Your task to perform on an android device: turn on sleep mode Image 0: 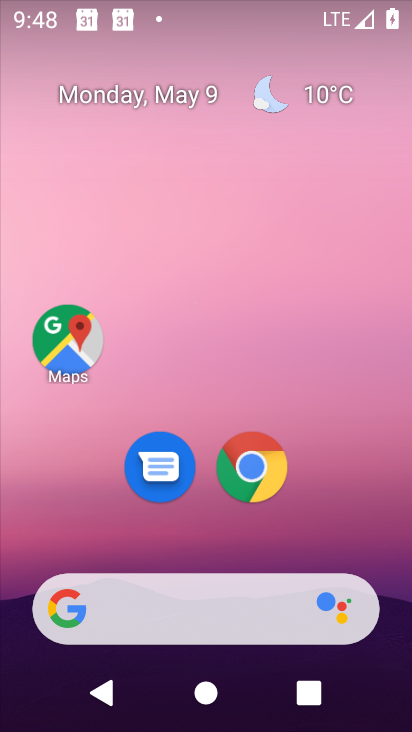
Step 0: drag from (393, 546) to (242, 4)
Your task to perform on an android device: turn on sleep mode Image 1: 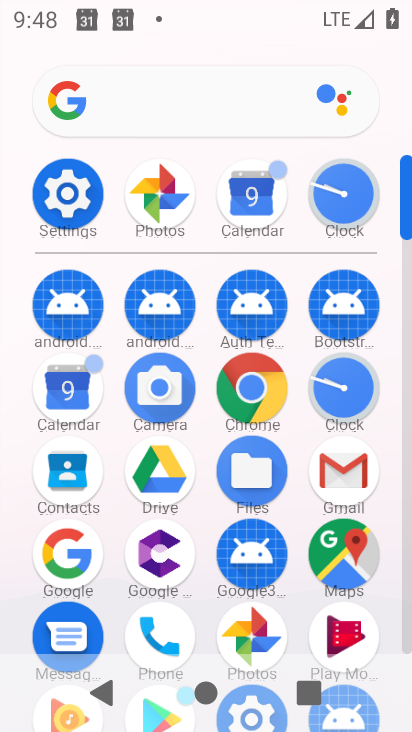
Step 1: click (72, 186)
Your task to perform on an android device: turn on sleep mode Image 2: 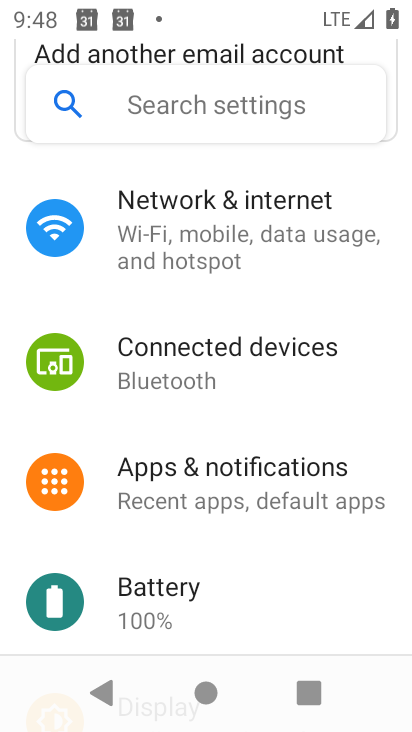
Step 2: drag from (378, 551) to (389, 222)
Your task to perform on an android device: turn on sleep mode Image 3: 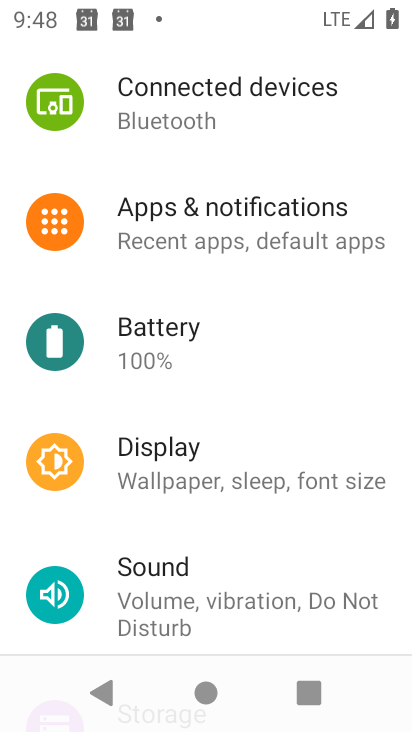
Step 3: click (149, 454)
Your task to perform on an android device: turn on sleep mode Image 4: 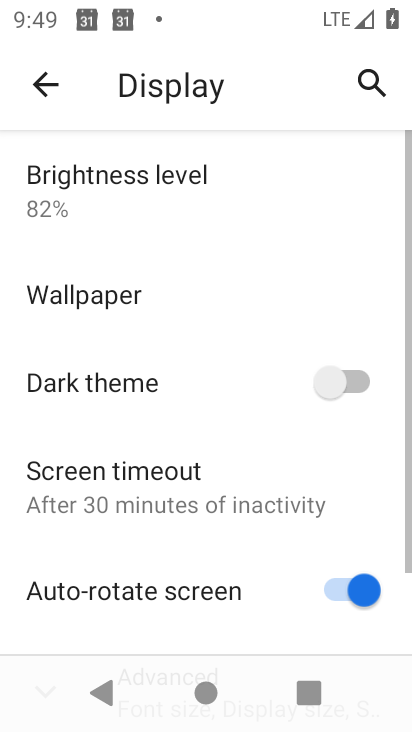
Step 4: drag from (177, 505) to (167, 122)
Your task to perform on an android device: turn on sleep mode Image 5: 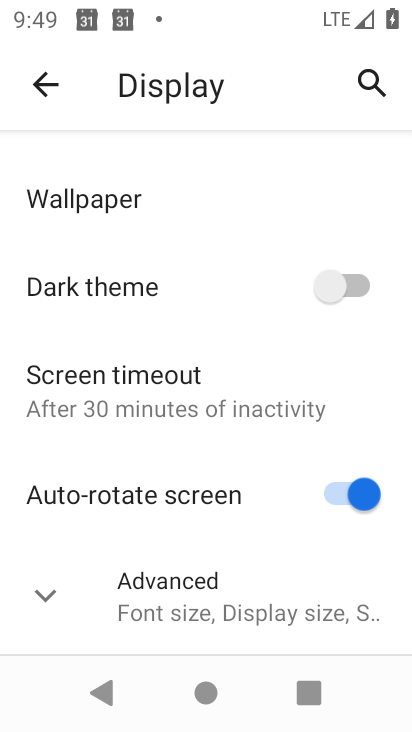
Step 5: click (25, 607)
Your task to perform on an android device: turn on sleep mode Image 6: 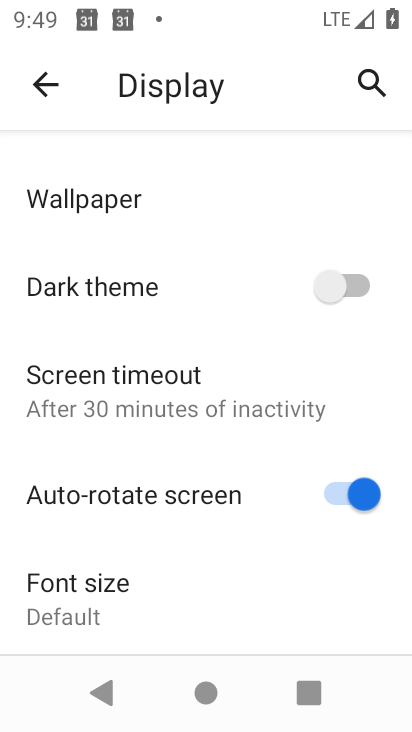
Step 6: task complete